Your task to perform on an android device: add a label to a message in the gmail app Image 0: 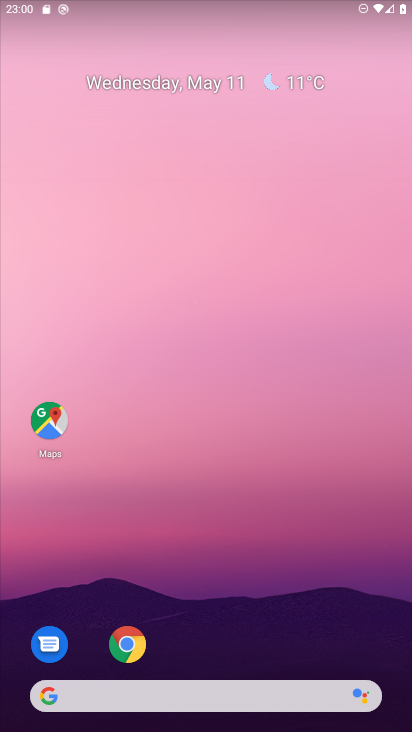
Step 0: drag from (358, 649) to (321, 39)
Your task to perform on an android device: add a label to a message in the gmail app Image 1: 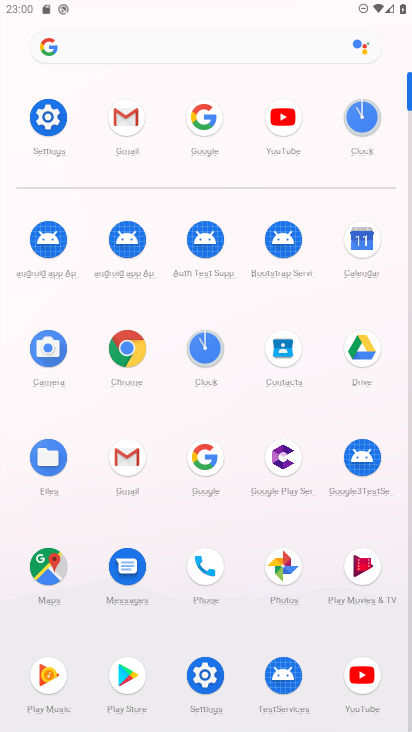
Step 1: click (125, 115)
Your task to perform on an android device: add a label to a message in the gmail app Image 2: 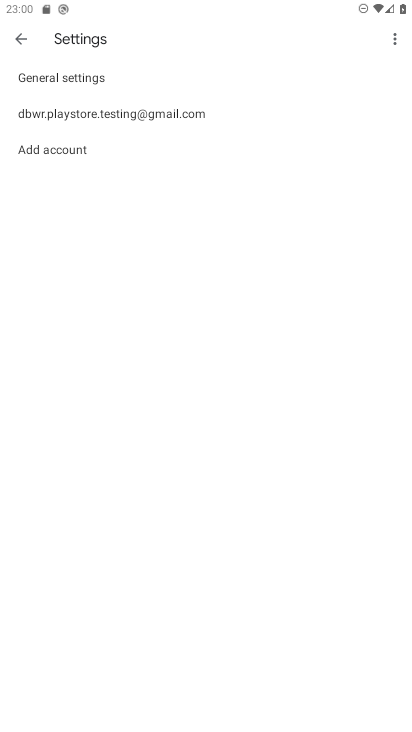
Step 2: click (24, 41)
Your task to perform on an android device: add a label to a message in the gmail app Image 3: 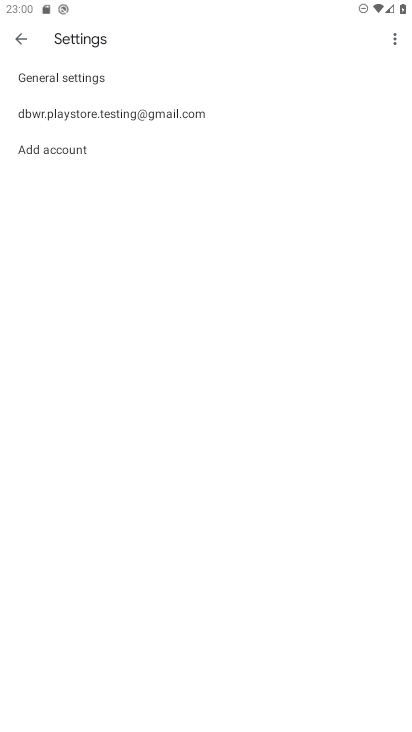
Step 3: click (24, 41)
Your task to perform on an android device: add a label to a message in the gmail app Image 4: 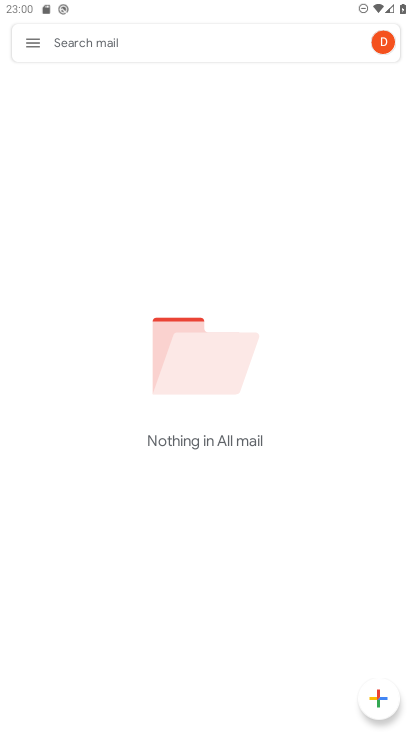
Step 4: task complete